Your task to perform on an android device: remove spam from my inbox in the gmail app Image 0: 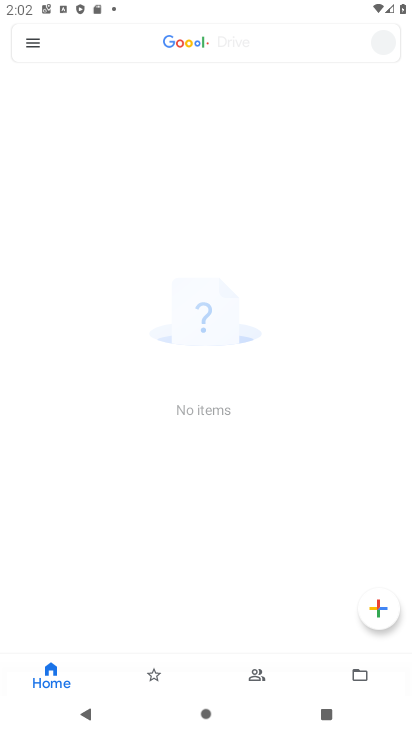
Step 0: drag from (368, 629) to (315, 557)
Your task to perform on an android device: remove spam from my inbox in the gmail app Image 1: 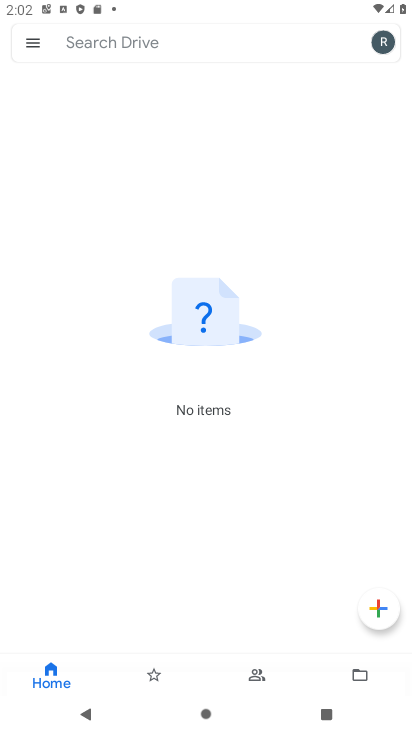
Step 1: press home button
Your task to perform on an android device: remove spam from my inbox in the gmail app Image 2: 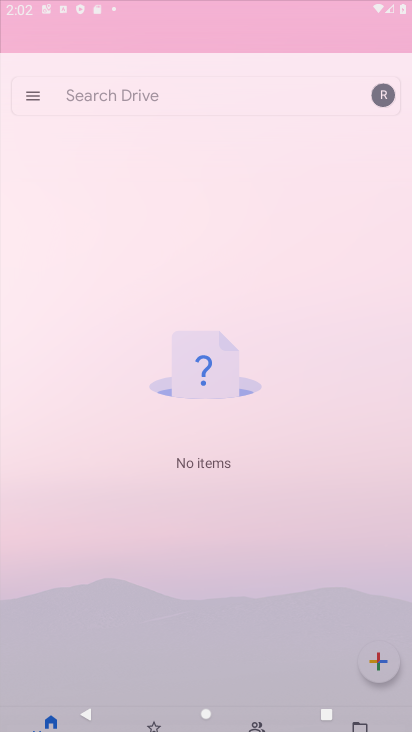
Step 2: drag from (261, 669) to (127, 71)
Your task to perform on an android device: remove spam from my inbox in the gmail app Image 3: 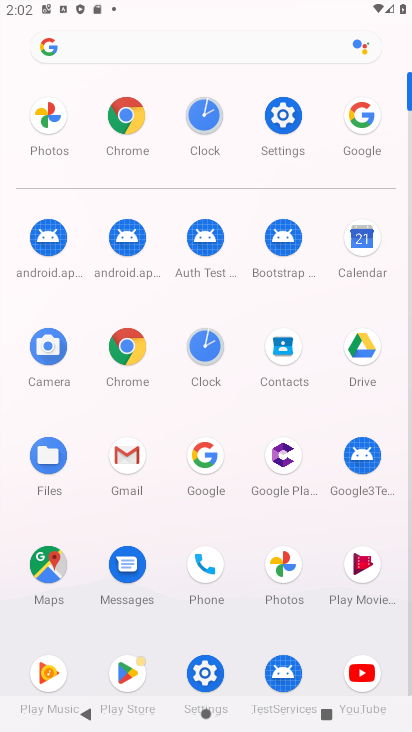
Step 3: click (136, 450)
Your task to perform on an android device: remove spam from my inbox in the gmail app Image 4: 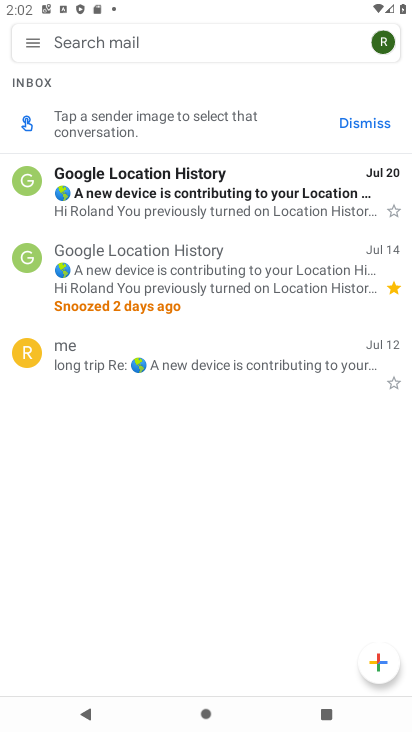
Step 4: click (26, 35)
Your task to perform on an android device: remove spam from my inbox in the gmail app Image 5: 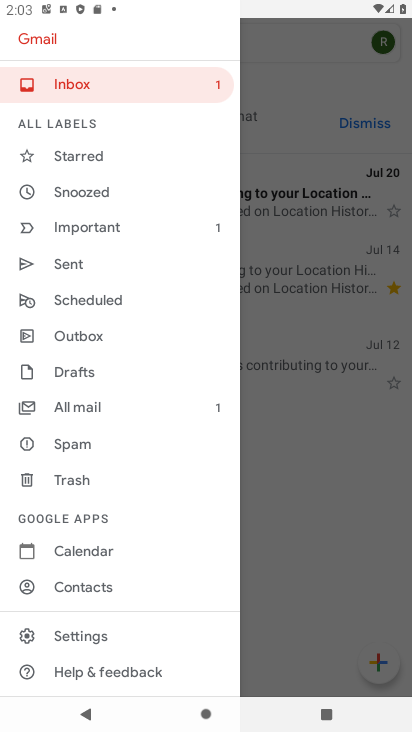
Step 5: click (80, 453)
Your task to perform on an android device: remove spam from my inbox in the gmail app Image 6: 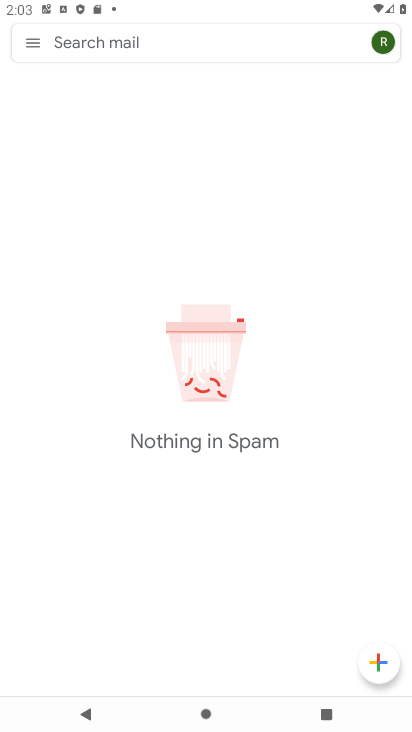
Step 6: task complete